Your task to perform on an android device: change the clock display to show seconds Image 0: 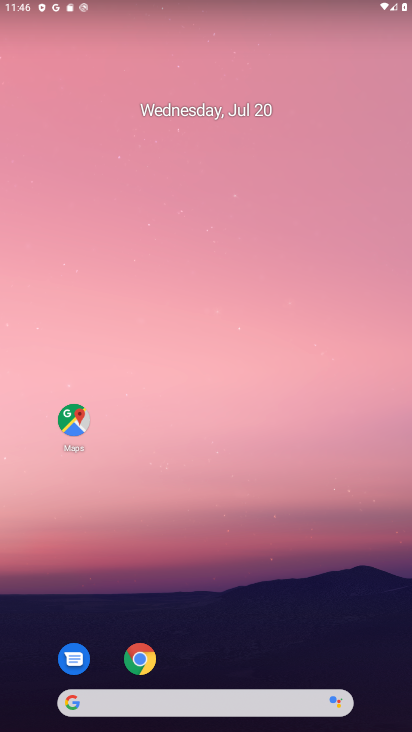
Step 0: drag from (299, 629) to (319, 12)
Your task to perform on an android device: change the clock display to show seconds Image 1: 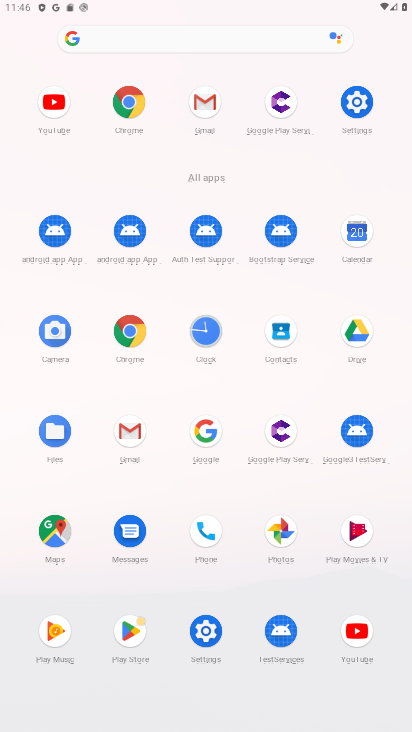
Step 1: click (216, 323)
Your task to perform on an android device: change the clock display to show seconds Image 2: 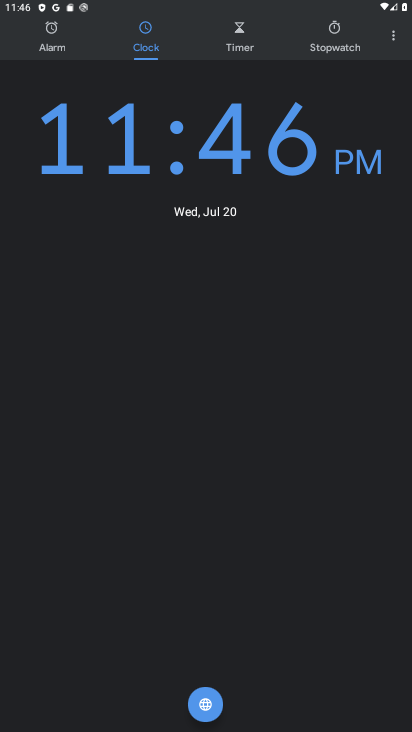
Step 2: click (400, 46)
Your task to perform on an android device: change the clock display to show seconds Image 3: 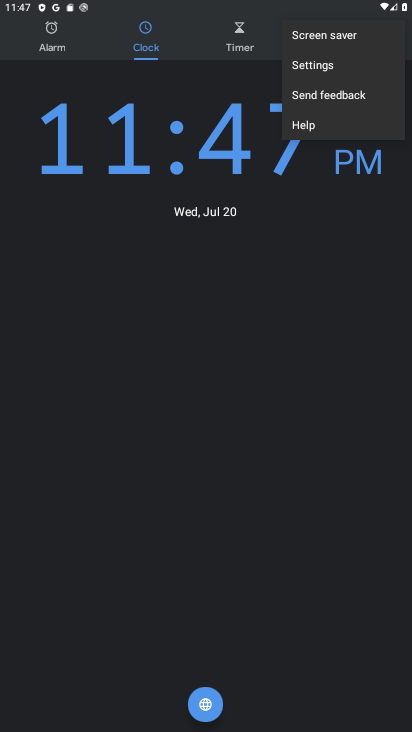
Step 3: click (350, 69)
Your task to perform on an android device: change the clock display to show seconds Image 4: 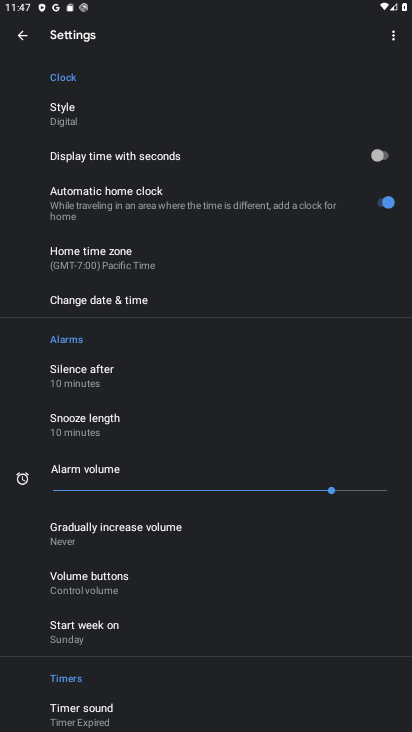
Step 4: click (376, 159)
Your task to perform on an android device: change the clock display to show seconds Image 5: 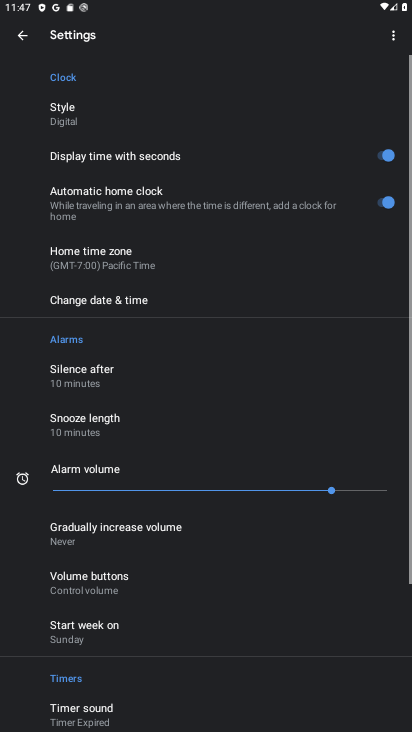
Step 5: task complete